Your task to perform on an android device: Go to Yahoo.com Image 0: 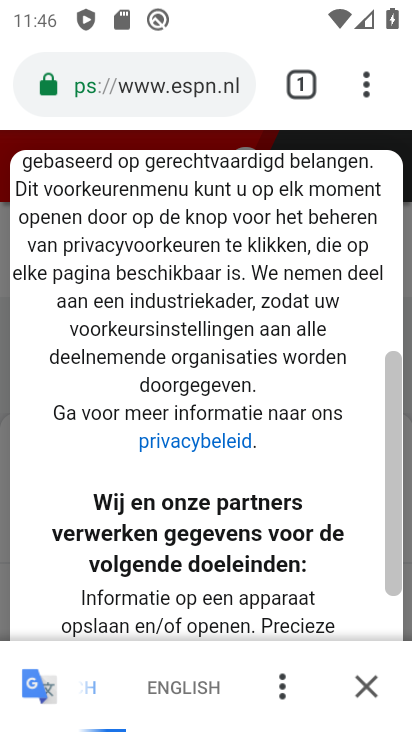
Step 0: click (154, 78)
Your task to perform on an android device: Go to Yahoo.com Image 1: 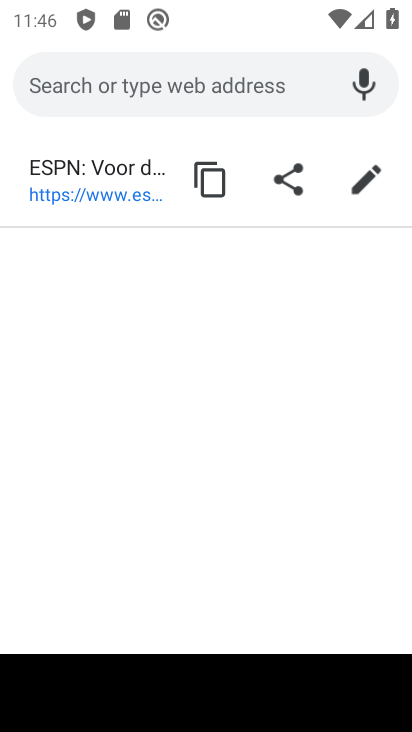
Step 1: type "yahoo.com"
Your task to perform on an android device: Go to Yahoo.com Image 2: 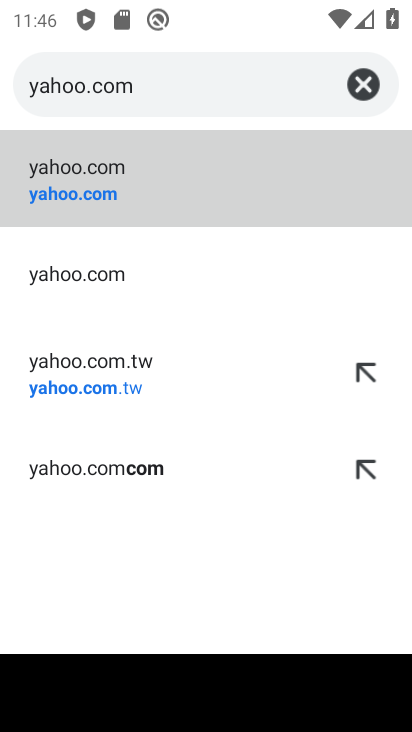
Step 2: click (149, 188)
Your task to perform on an android device: Go to Yahoo.com Image 3: 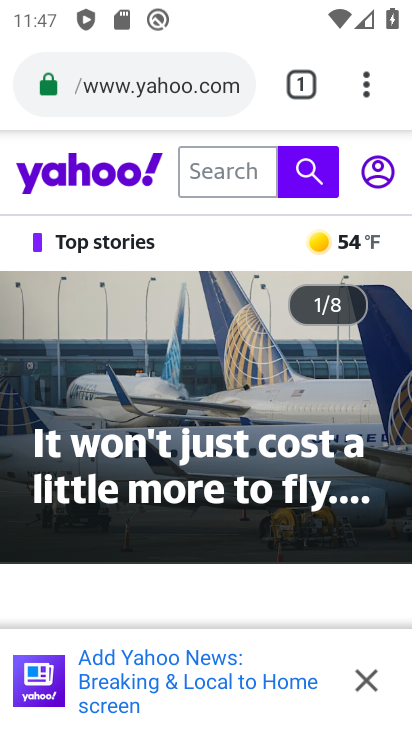
Step 3: task complete